Your task to perform on an android device: What's a good restaurant in Portland? Image 0: 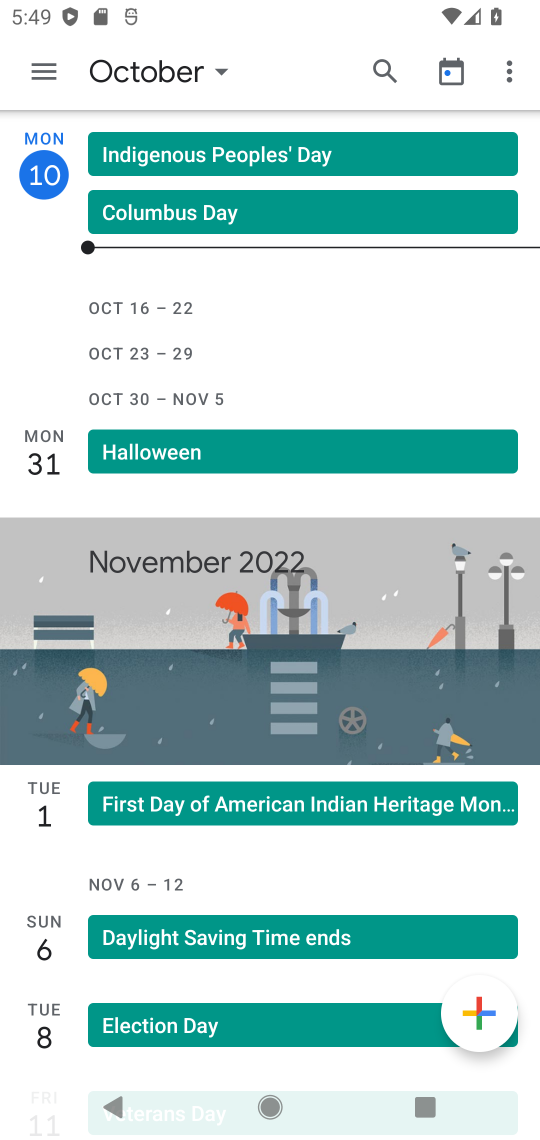
Step 0: press home button
Your task to perform on an android device: What's a good restaurant in Portland? Image 1: 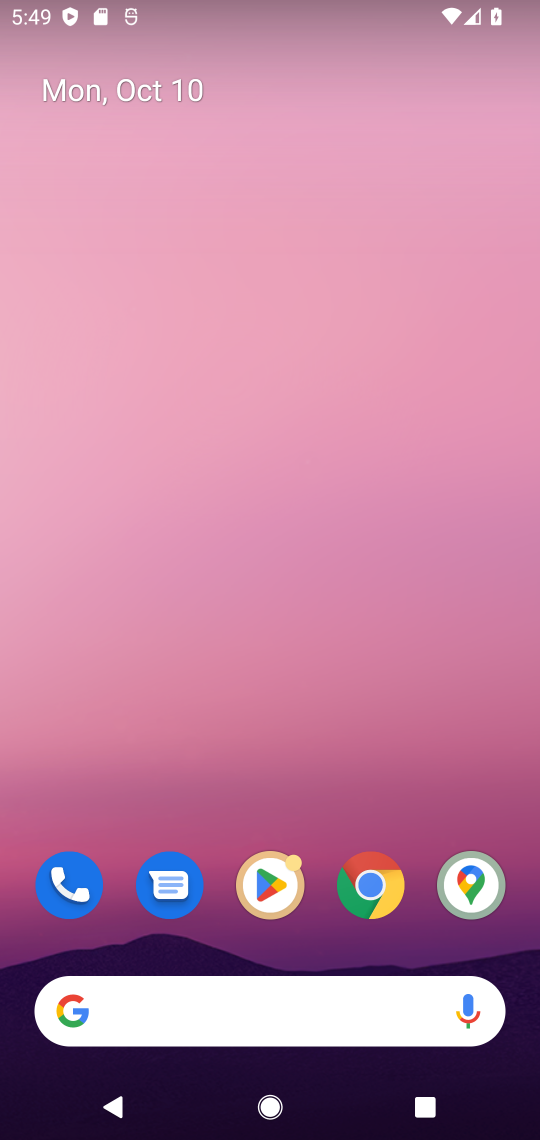
Step 1: click (366, 888)
Your task to perform on an android device: What's a good restaurant in Portland? Image 2: 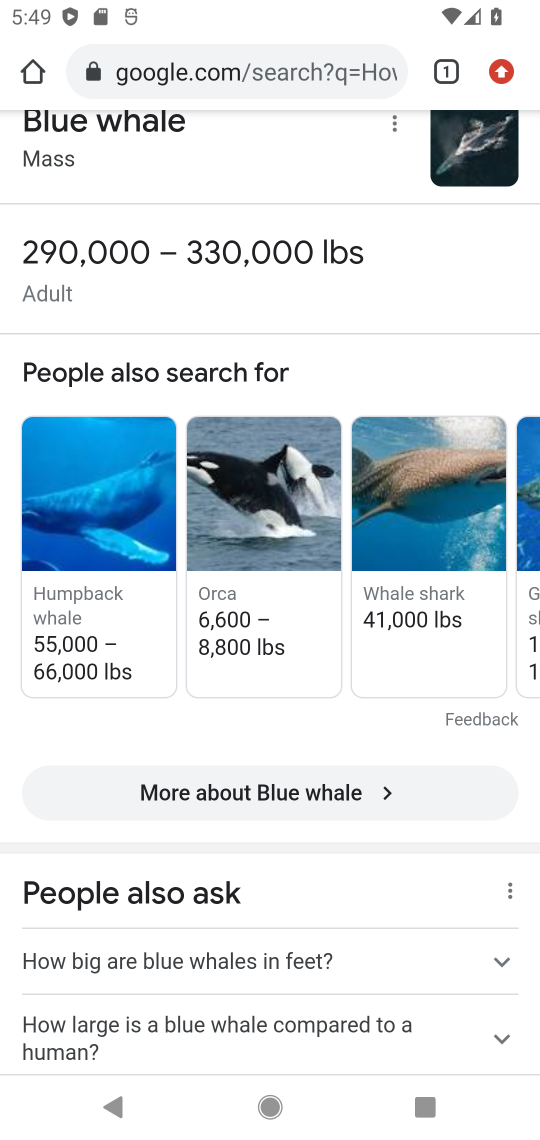
Step 2: click (279, 73)
Your task to perform on an android device: What's a good restaurant in Portland? Image 3: 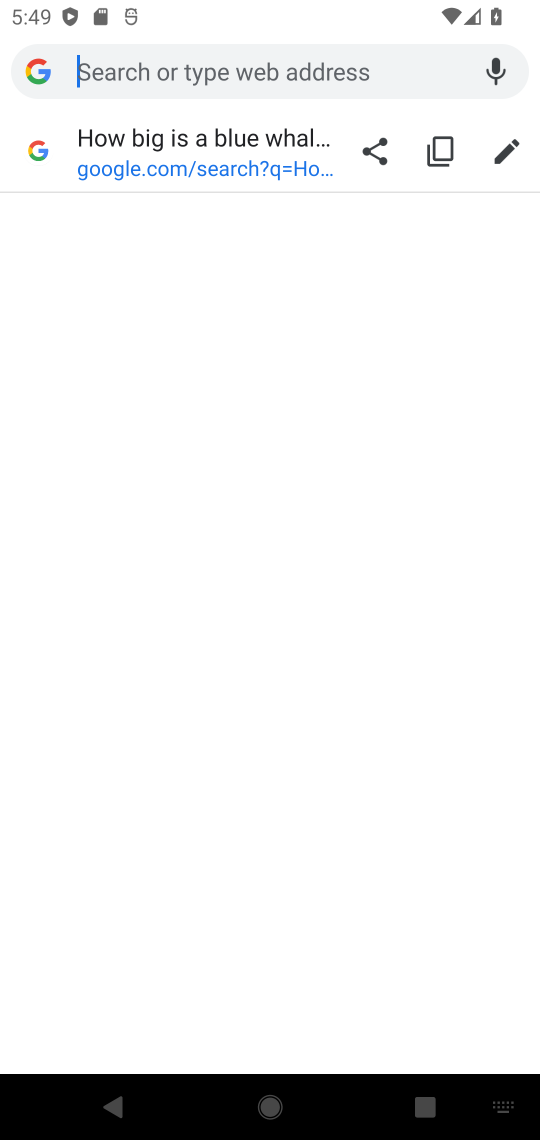
Step 3: type "good restaurant in Portland"
Your task to perform on an android device: What's a good restaurant in Portland? Image 4: 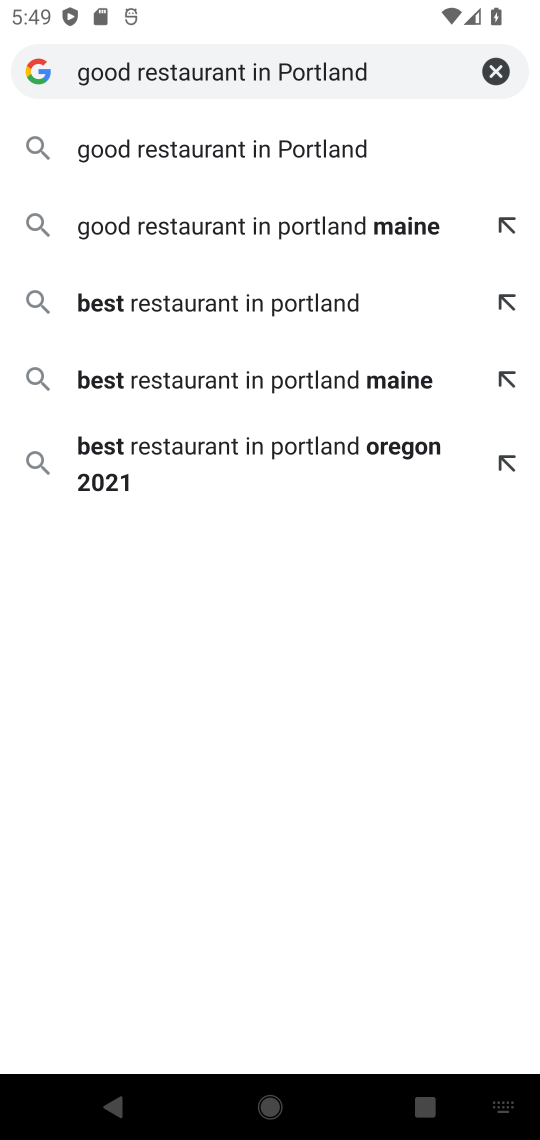
Step 4: click (336, 147)
Your task to perform on an android device: What's a good restaurant in Portland? Image 5: 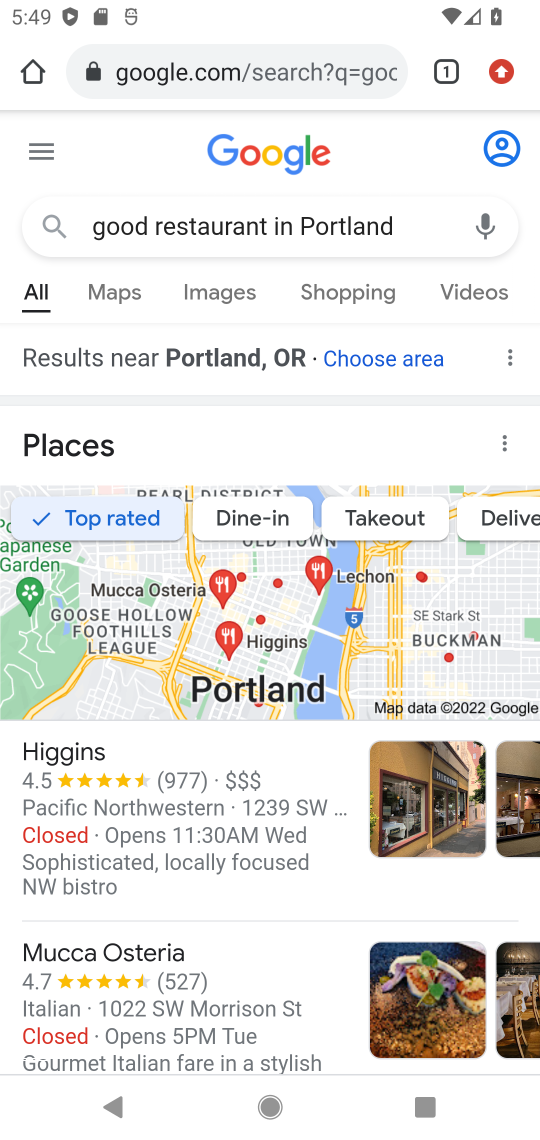
Step 5: drag from (319, 903) to (273, 293)
Your task to perform on an android device: What's a good restaurant in Portland? Image 6: 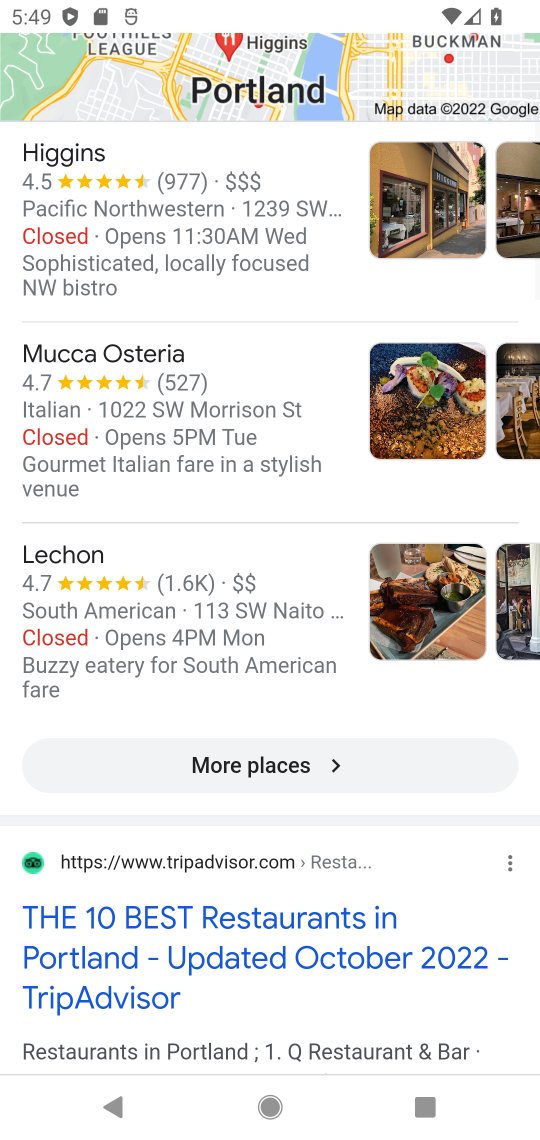
Step 6: click (229, 767)
Your task to perform on an android device: What's a good restaurant in Portland? Image 7: 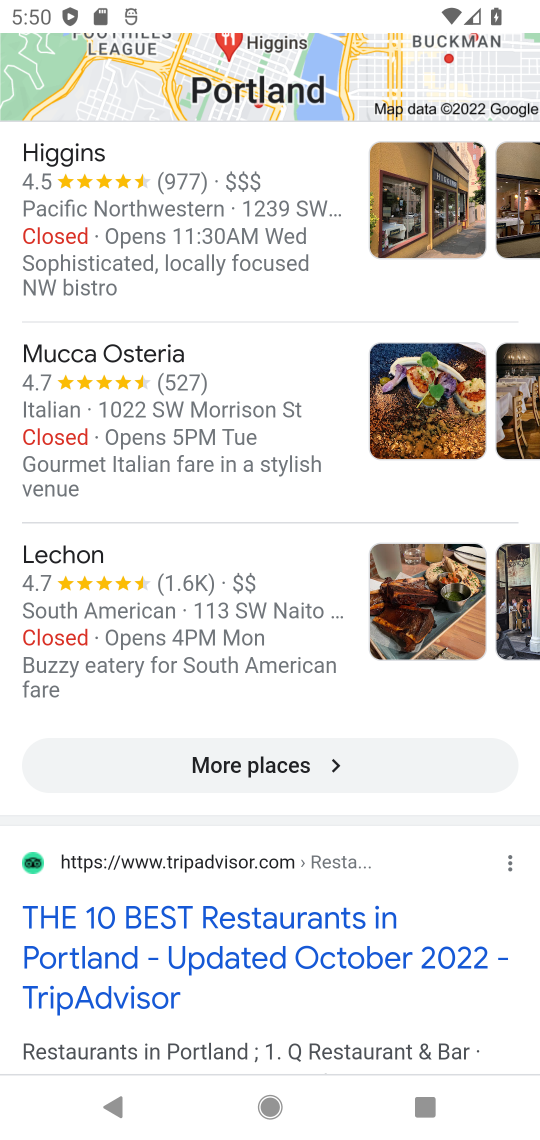
Step 7: click (221, 764)
Your task to perform on an android device: What's a good restaurant in Portland? Image 8: 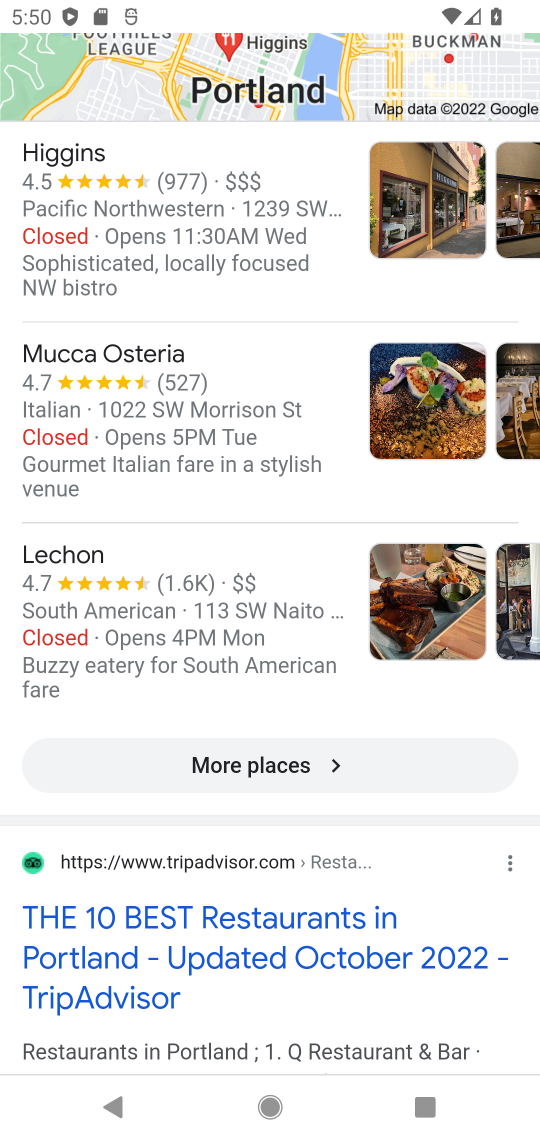
Step 8: click (273, 767)
Your task to perform on an android device: What's a good restaurant in Portland? Image 9: 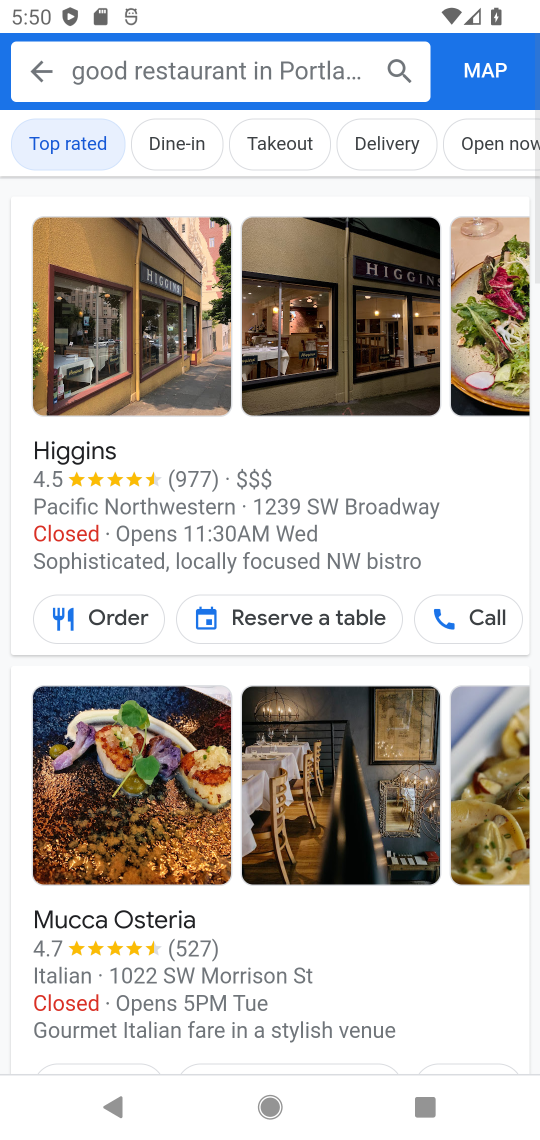
Step 9: task complete